Your task to perform on an android device: turn off wifi Image 0: 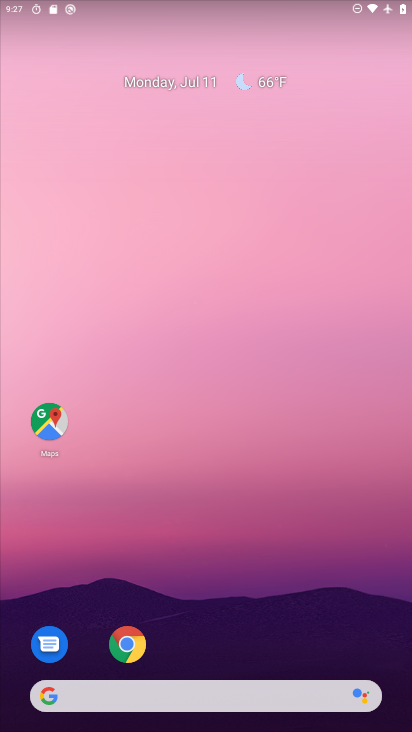
Step 0: drag from (308, 666) to (215, 181)
Your task to perform on an android device: turn off wifi Image 1: 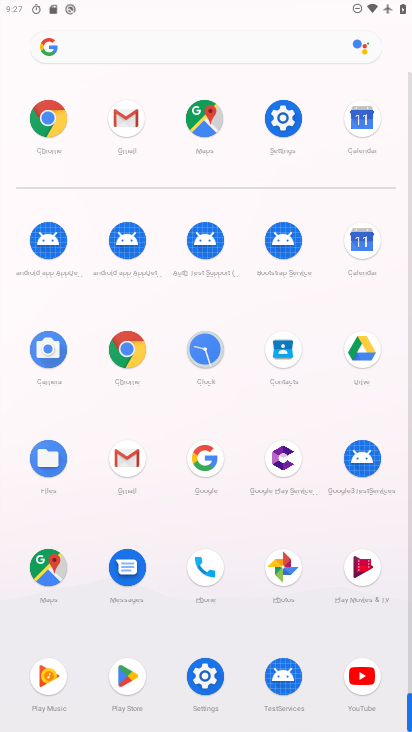
Step 1: click (289, 119)
Your task to perform on an android device: turn off wifi Image 2: 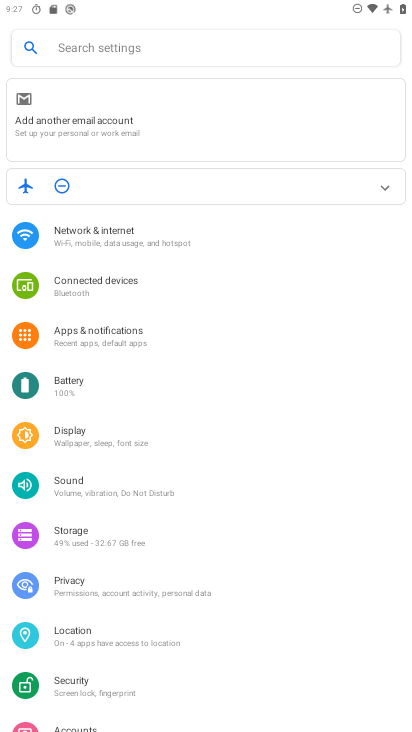
Step 2: click (83, 248)
Your task to perform on an android device: turn off wifi Image 3: 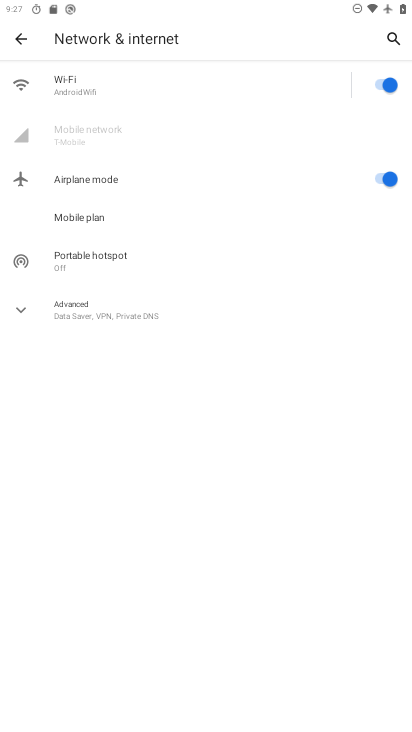
Step 3: click (393, 78)
Your task to perform on an android device: turn off wifi Image 4: 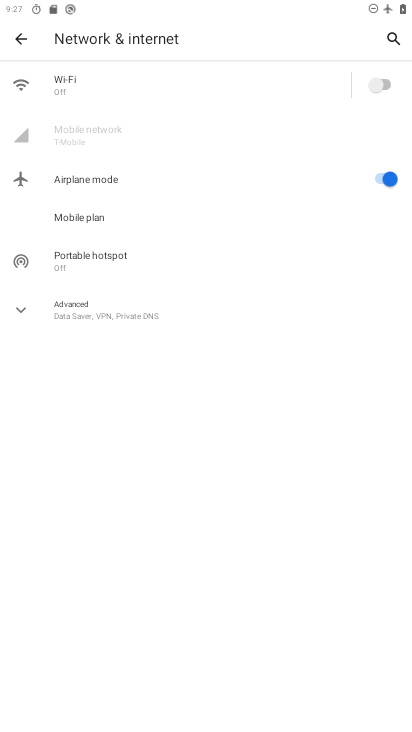
Step 4: task complete